Your task to perform on an android device: clear history in the chrome app Image 0: 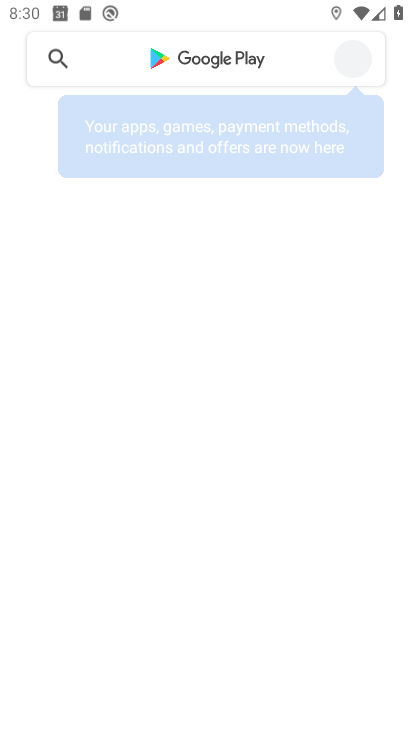
Step 0: press home button
Your task to perform on an android device: clear history in the chrome app Image 1: 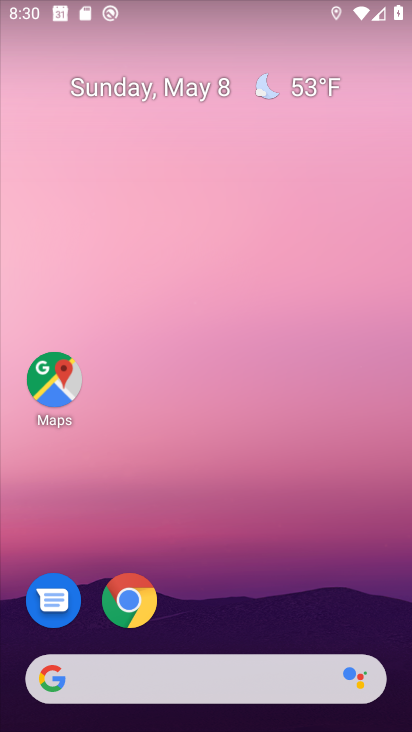
Step 1: click (129, 599)
Your task to perform on an android device: clear history in the chrome app Image 2: 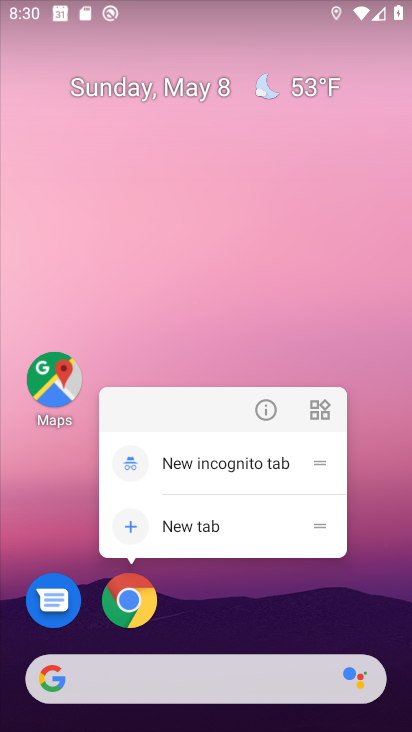
Step 2: click (147, 618)
Your task to perform on an android device: clear history in the chrome app Image 3: 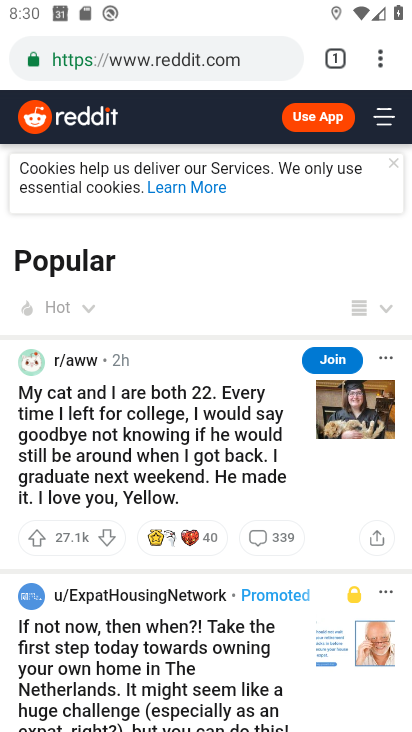
Step 3: click (376, 63)
Your task to perform on an android device: clear history in the chrome app Image 4: 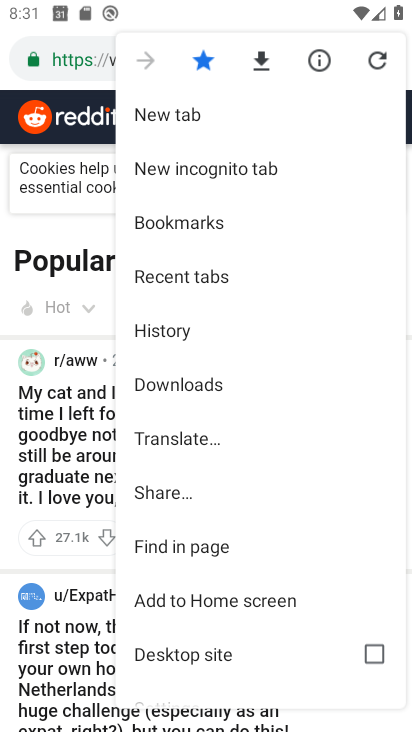
Step 4: click (189, 342)
Your task to perform on an android device: clear history in the chrome app Image 5: 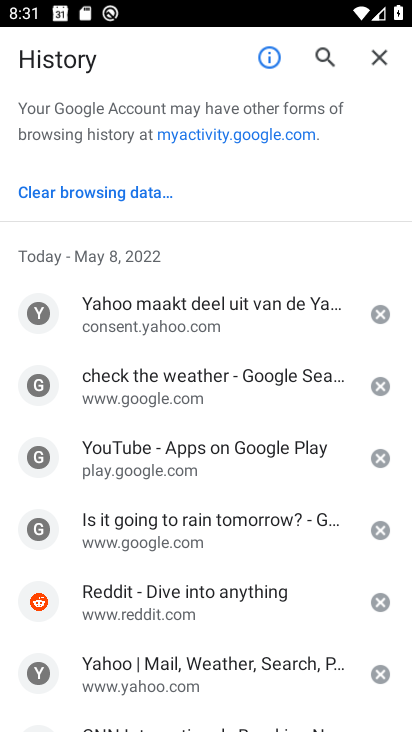
Step 5: click (144, 194)
Your task to perform on an android device: clear history in the chrome app Image 6: 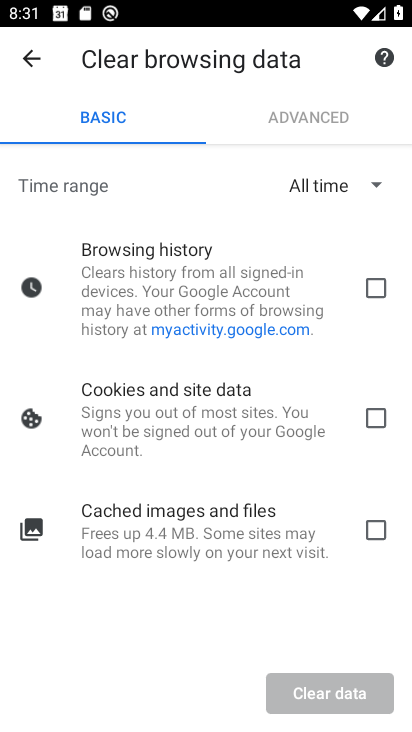
Step 6: click (381, 279)
Your task to perform on an android device: clear history in the chrome app Image 7: 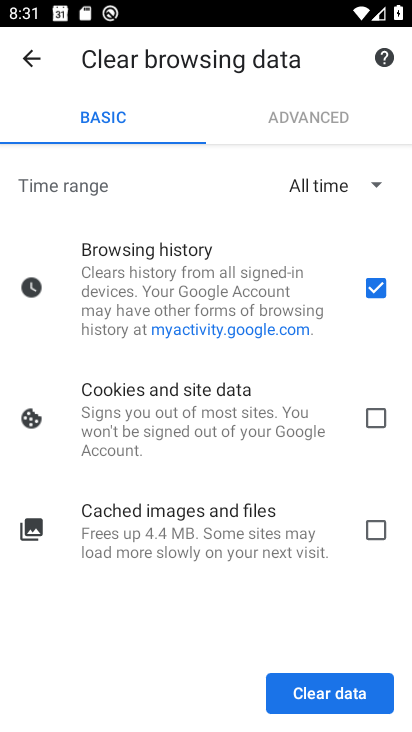
Step 7: click (351, 697)
Your task to perform on an android device: clear history in the chrome app Image 8: 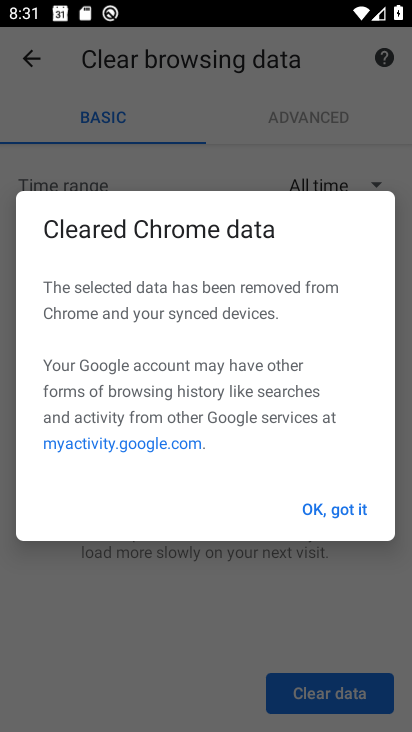
Step 8: click (343, 515)
Your task to perform on an android device: clear history in the chrome app Image 9: 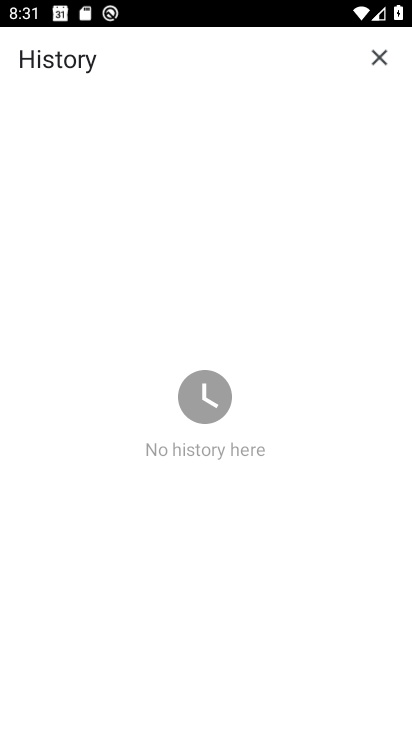
Step 9: task complete